Your task to perform on an android device: turn on data saver in the chrome app Image 0: 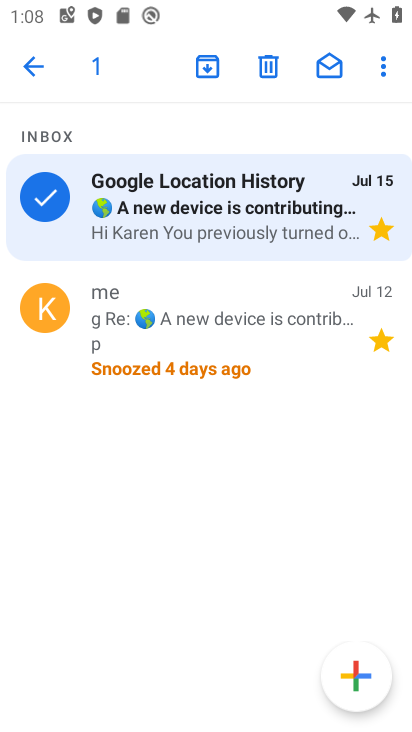
Step 0: press home button
Your task to perform on an android device: turn on data saver in the chrome app Image 1: 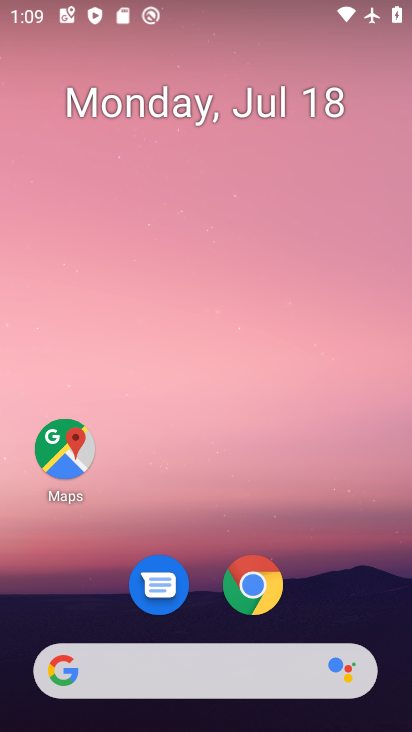
Step 1: click (250, 592)
Your task to perform on an android device: turn on data saver in the chrome app Image 2: 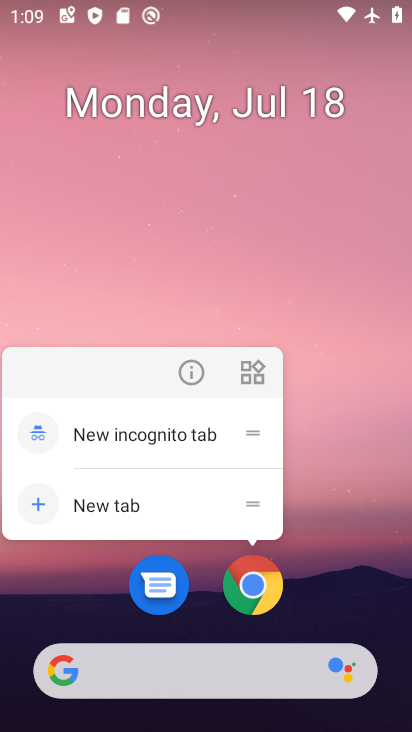
Step 2: click (246, 580)
Your task to perform on an android device: turn on data saver in the chrome app Image 3: 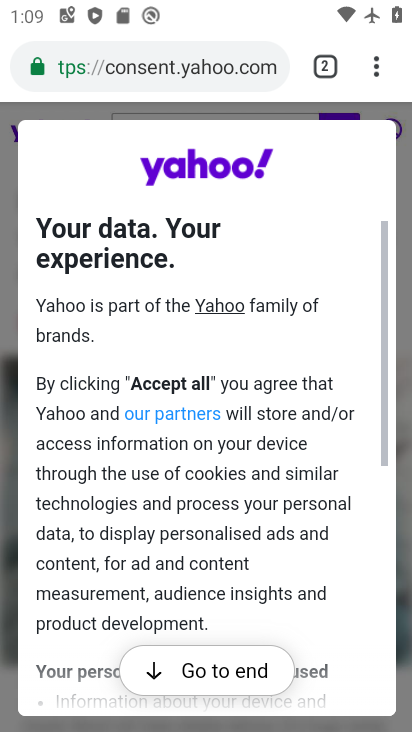
Step 3: drag from (380, 65) to (235, 589)
Your task to perform on an android device: turn on data saver in the chrome app Image 4: 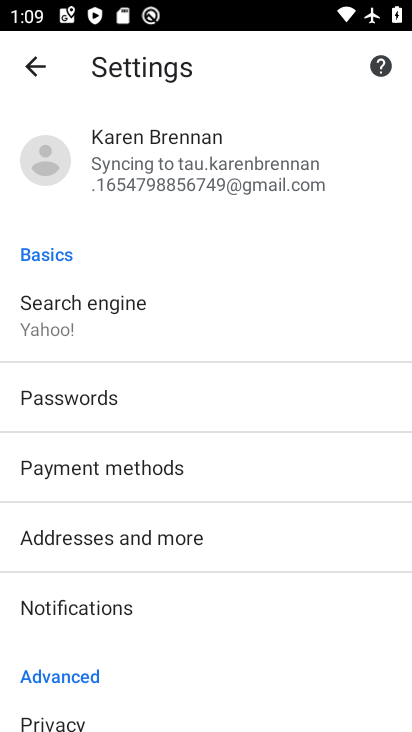
Step 4: drag from (195, 598) to (274, 165)
Your task to perform on an android device: turn on data saver in the chrome app Image 5: 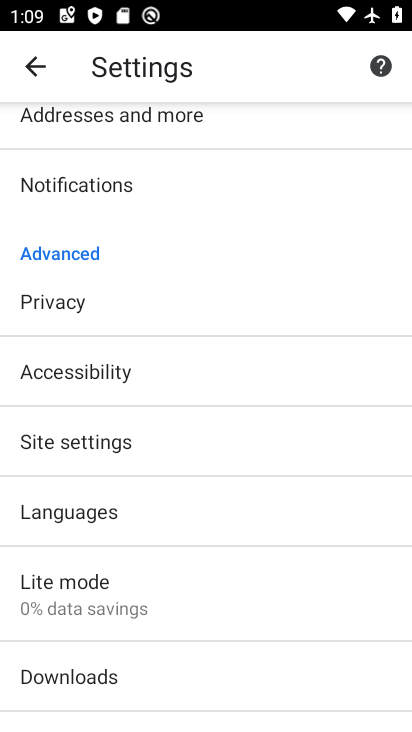
Step 5: click (116, 591)
Your task to perform on an android device: turn on data saver in the chrome app Image 6: 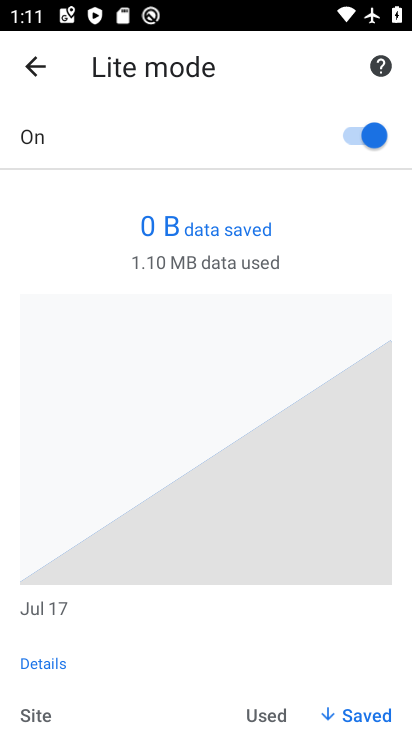
Step 6: task complete